Your task to perform on an android device: Show me the alarms in the clock app Image 0: 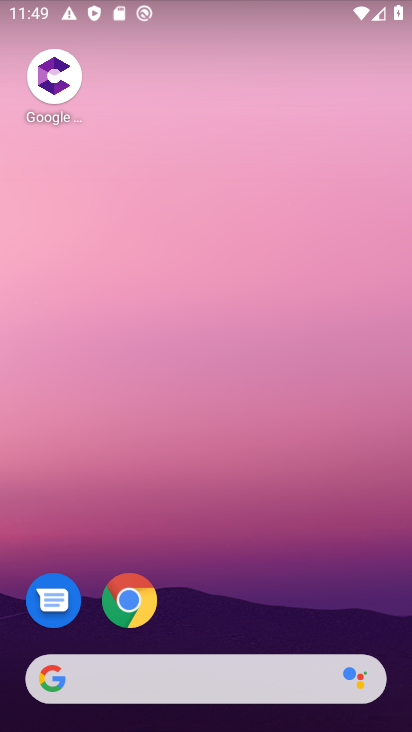
Step 0: drag from (227, 605) to (217, 101)
Your task to perform on an android device: Show me the alarms in the clock app Image 1: 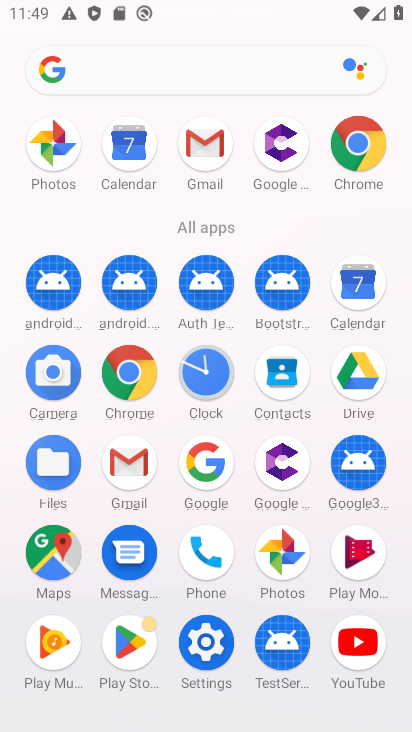
Step 1: click (214, 382)
Your task to perform on an android device: Show me the alarms in the clock app Image 2: 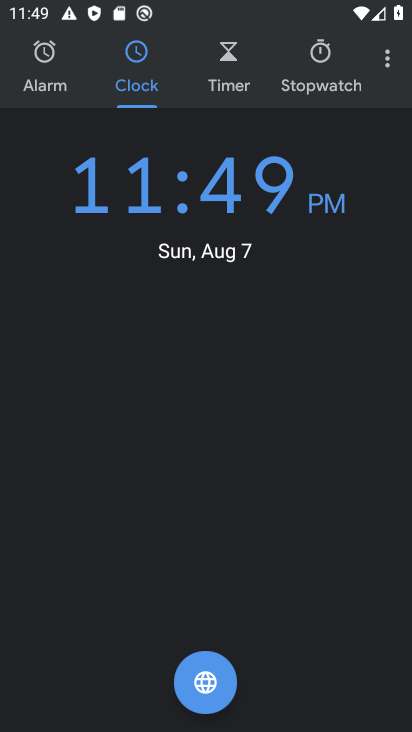
Step 2: click (64, 63)
Your task to perform on an android device: Show me the alarms in the clock app Image 3: 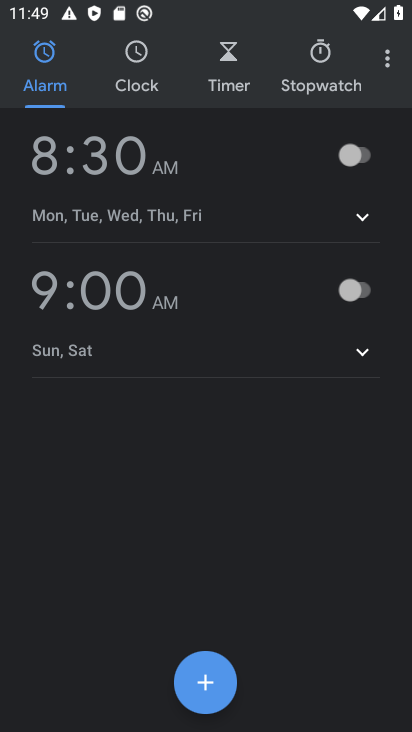
Step 3: task complete